Your task to perform on an android device: Play the last video I watched on Youtube Image 0: 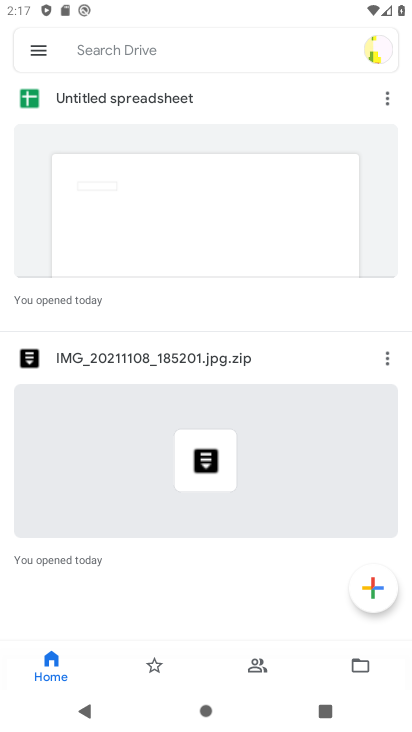
Step 0: press home button
Your task to perform on an android device: Play the last video I watched on Youtube Image 1: 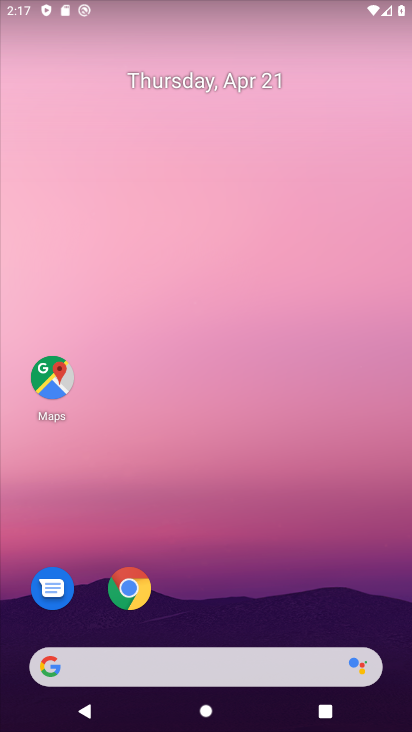
Step 1: drag from (251, 695) to (290, 230)
Your task to perform on an android device: Play the last video I watched on Youtube Image 2: 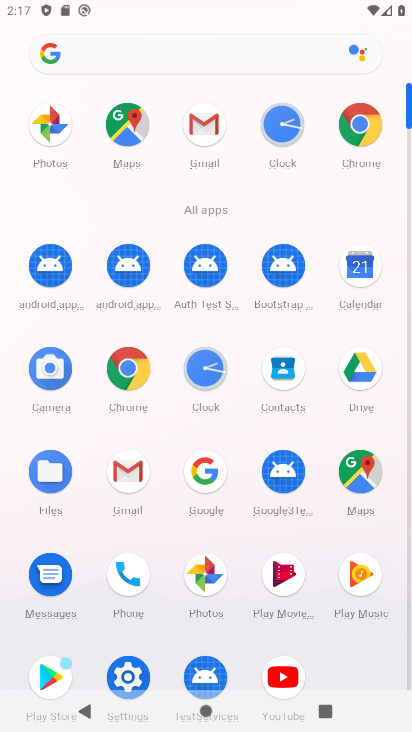
Step 2: click (274, 682)
Your task to perform on an android device: Play the last video I watched on Youtube Image 3: 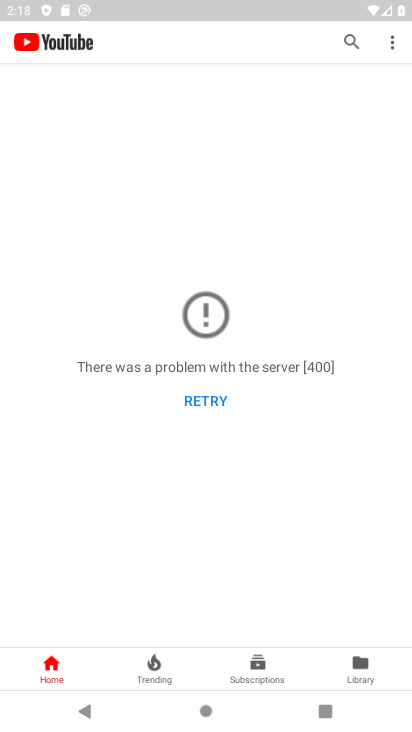
Step 3: click (251, 660)
Your task to perform on an android device: Play the last video I watched on Youtube Image 4: 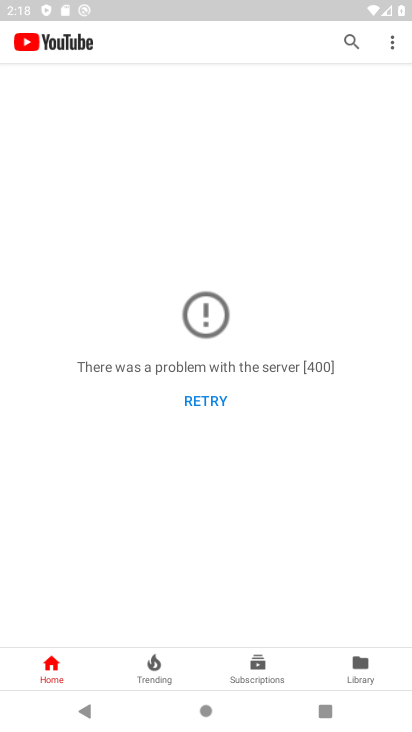
Step 4: click (254, 660)
Your task to perform on an android device: Play the last video I watched on Youtube Image 5: 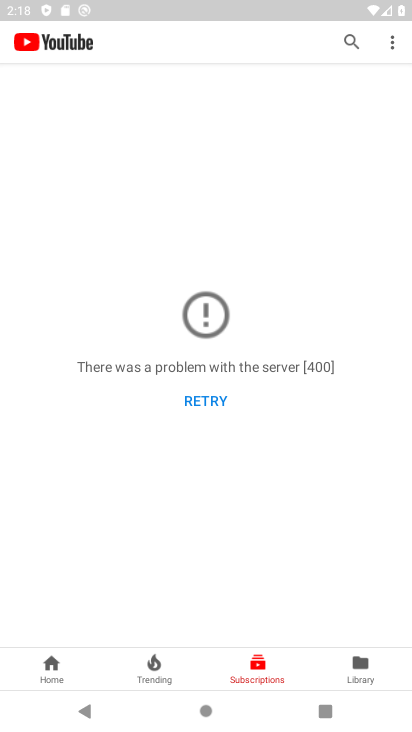
Step 5: task complete